Your task to perform on an android device: turn on translation in the chrome app Image 0: 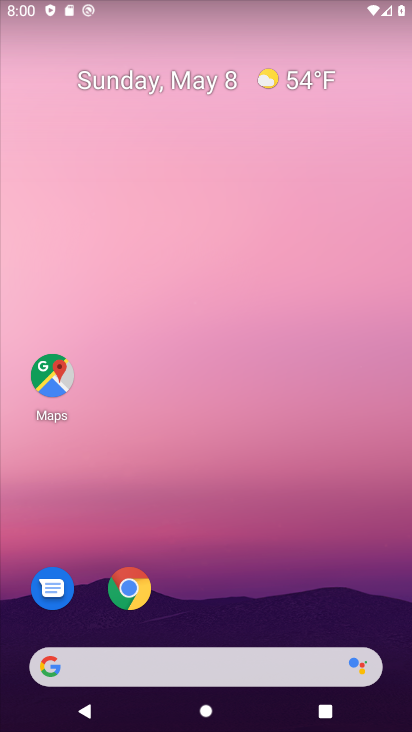
Step 0: click (122, 583)
Your task to perform on an android device: turn on translation in the chrome app Image 1: 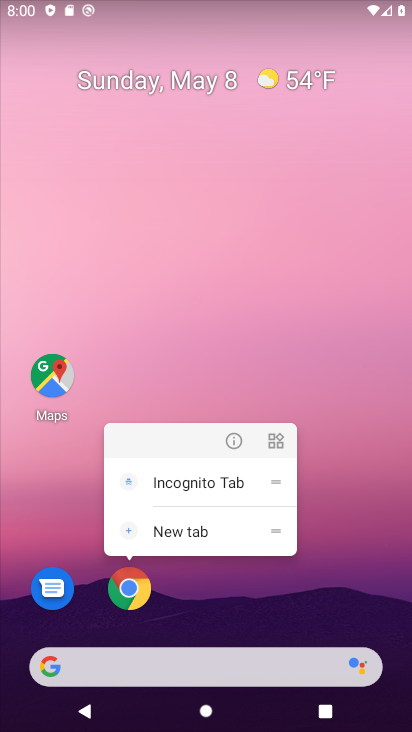
Step 1: click (233, 441)
Your task to perform on an android device: turn on translation in the chrome app Image 2: 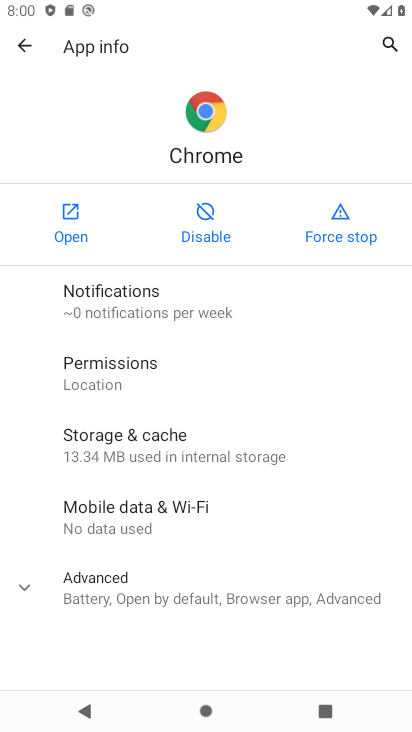
Step 2: click (72, 226)
Your task to perform on an android device: turn on translation in the chrome app Image 3: 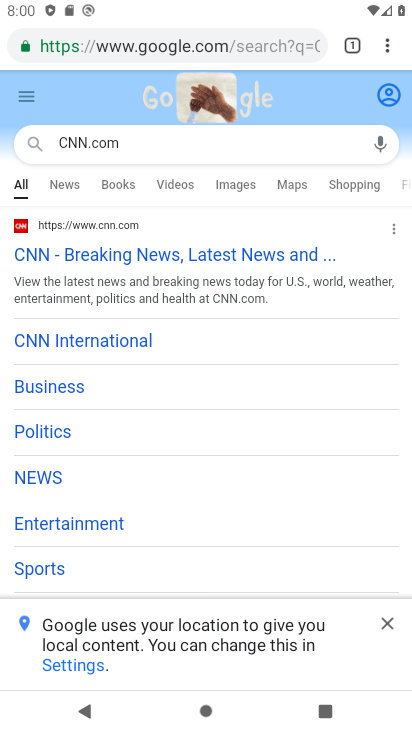
Step 3: click (392, 50)
Your task to perform on an android device: turn on translation in the chrome app Image 4: 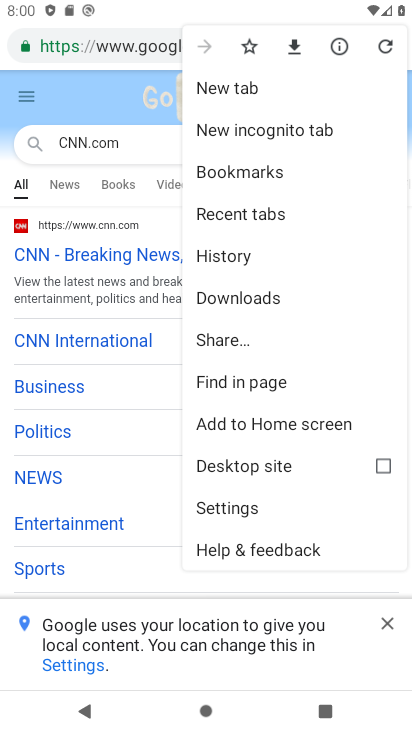
Step 4: click (235, 503)
Your task to perform on an android device: turn on translation in the chrome app Image 5: 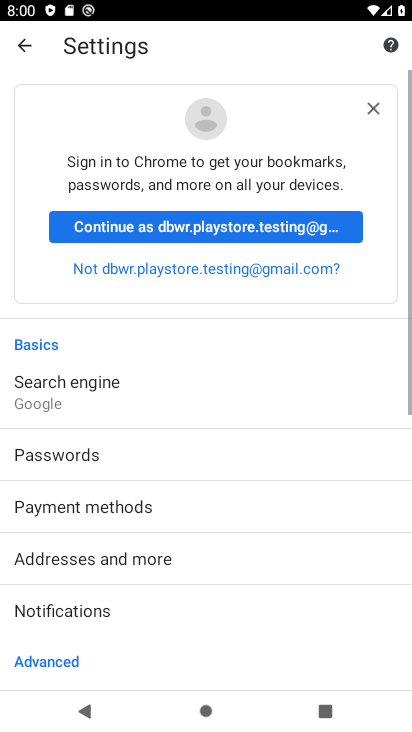
Step 5: drag from (186, 637) to (311, 304)
Your task to perform on an android device: turn on translation in the chrome app Image 6: 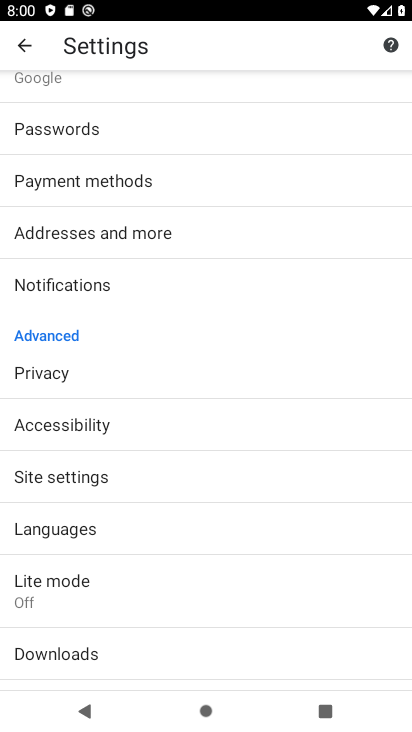
Step 6: click (105, 527)
Your task to perform on an android device: turn on translation in the chrome app Image 7: 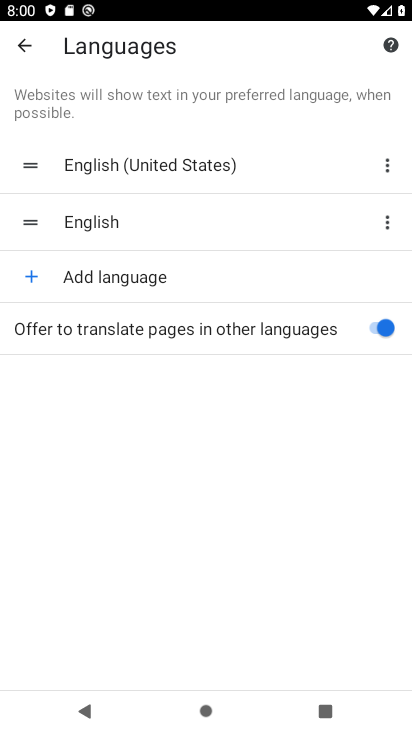
Step 7: task complete